Your task to perform on an android device: Add "alienware area 51" to the cart on bestbuy.com Image 0: 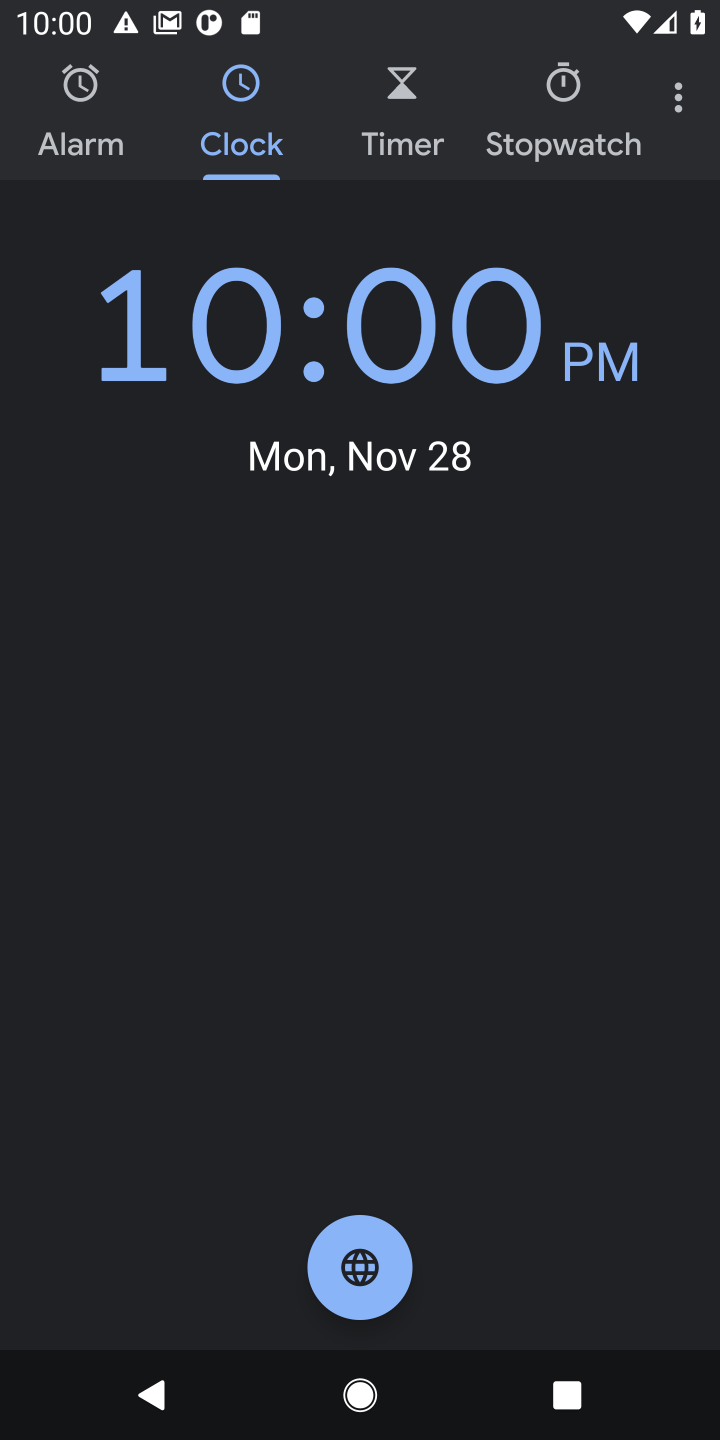
Step 0: press home button
Your task to perform on an android device: Add "alienware area 51" to the cart on bestbuy.com Image 1: 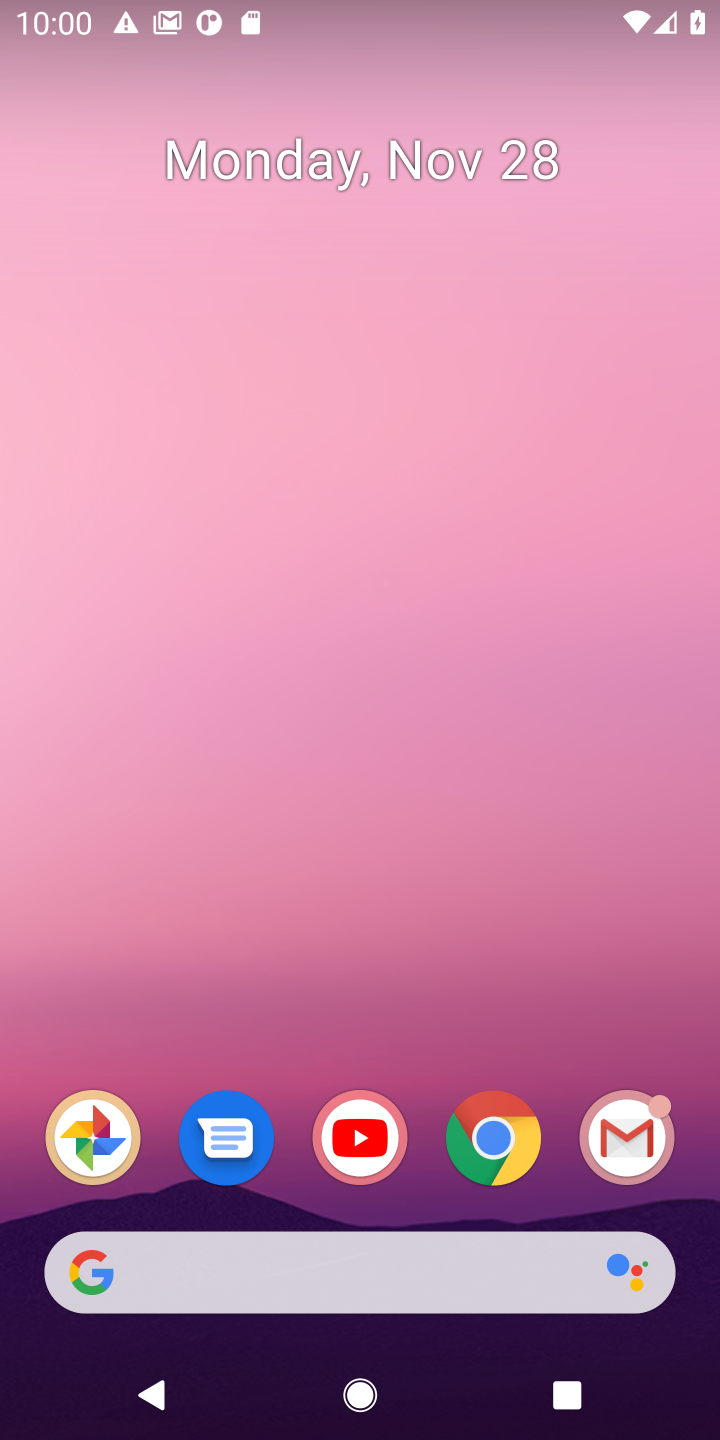
Step 1: click (505, 1149)
Your task to perform on an android device: Add "alienware area 51" to the cart on bestbuy.com Image 2: 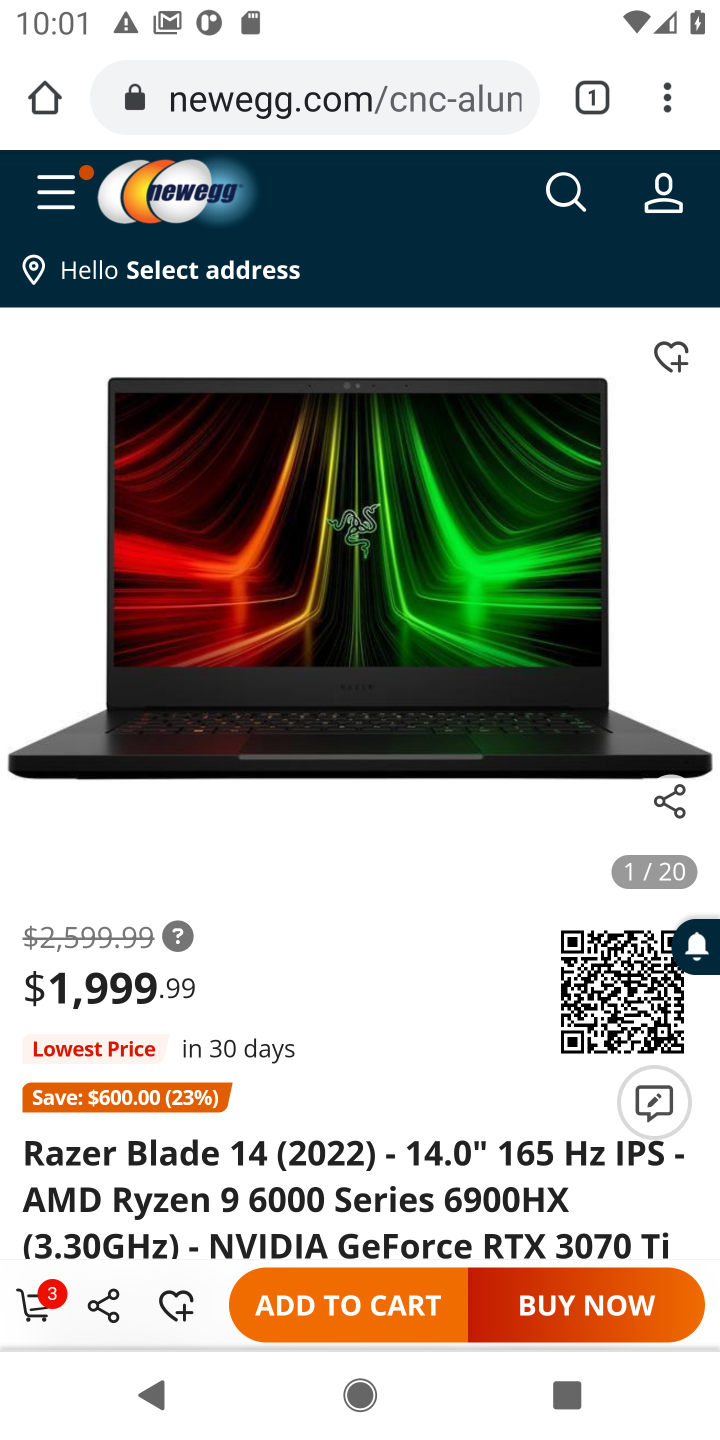
Step 2: click (296, 92)
Your task to perform on an android device: Add "alienware area 51" to the cart on bestbuy.com Image 3: 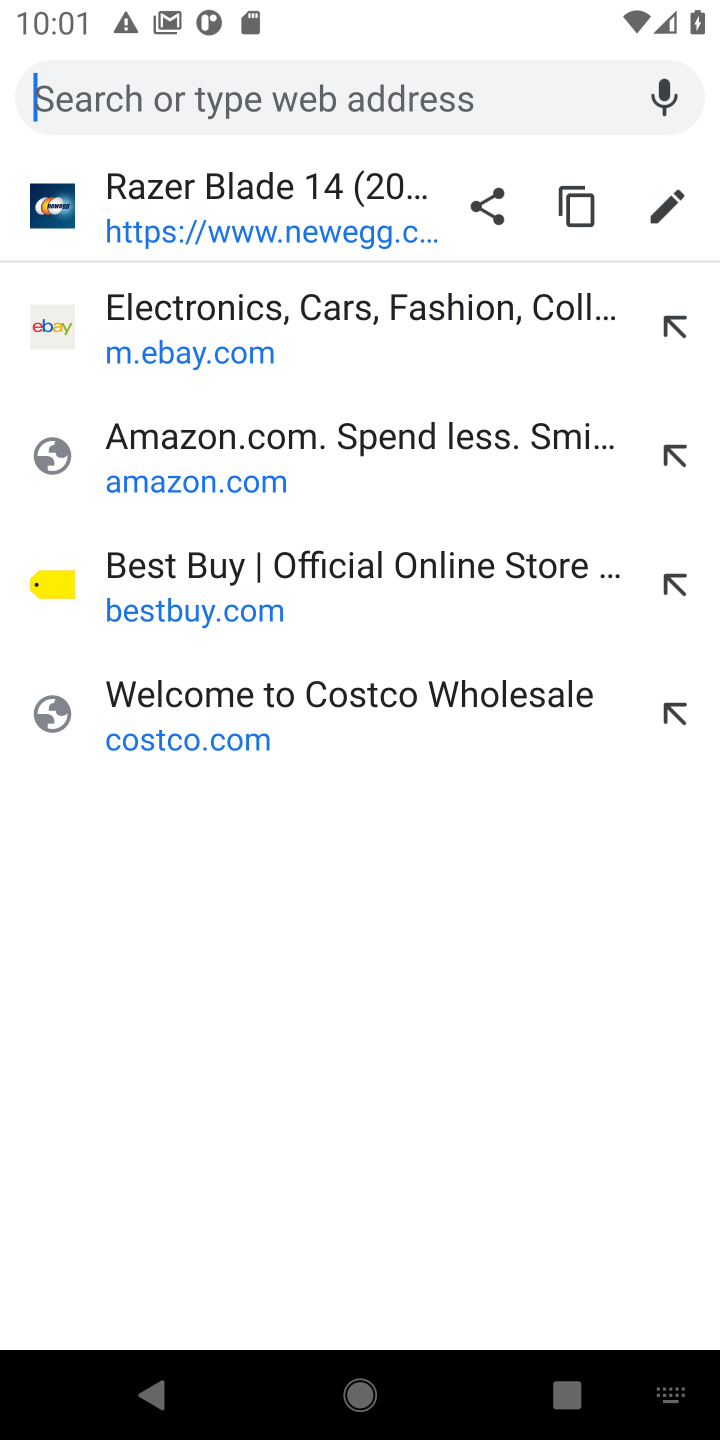
Step 3: click (138, 561)
Your task to perform on an android device: Add "alienware area 51" to the cart on bestbuy.com Image 4: 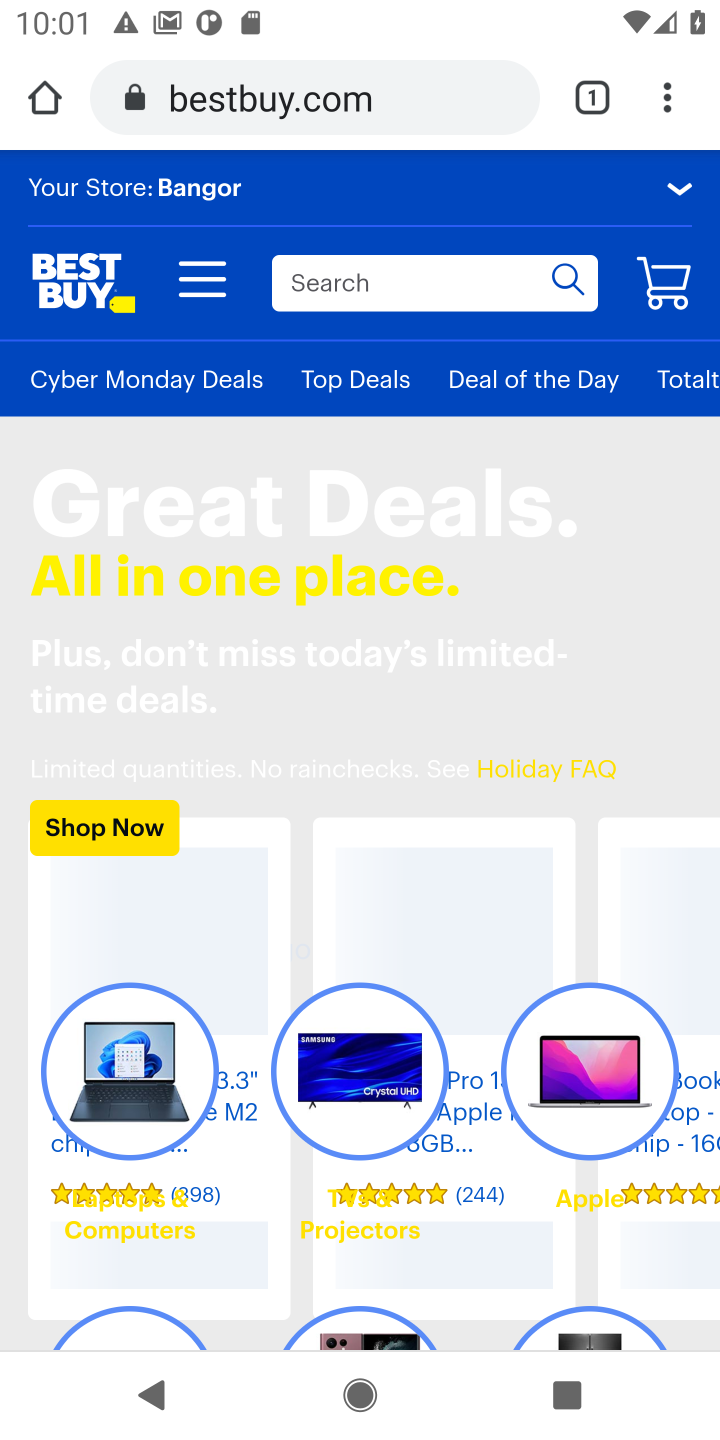
Step 4: click (335, 291)
Your task to perform on an android device: Add "alienware area 51" to the cart on bestbuy.com Image 5: 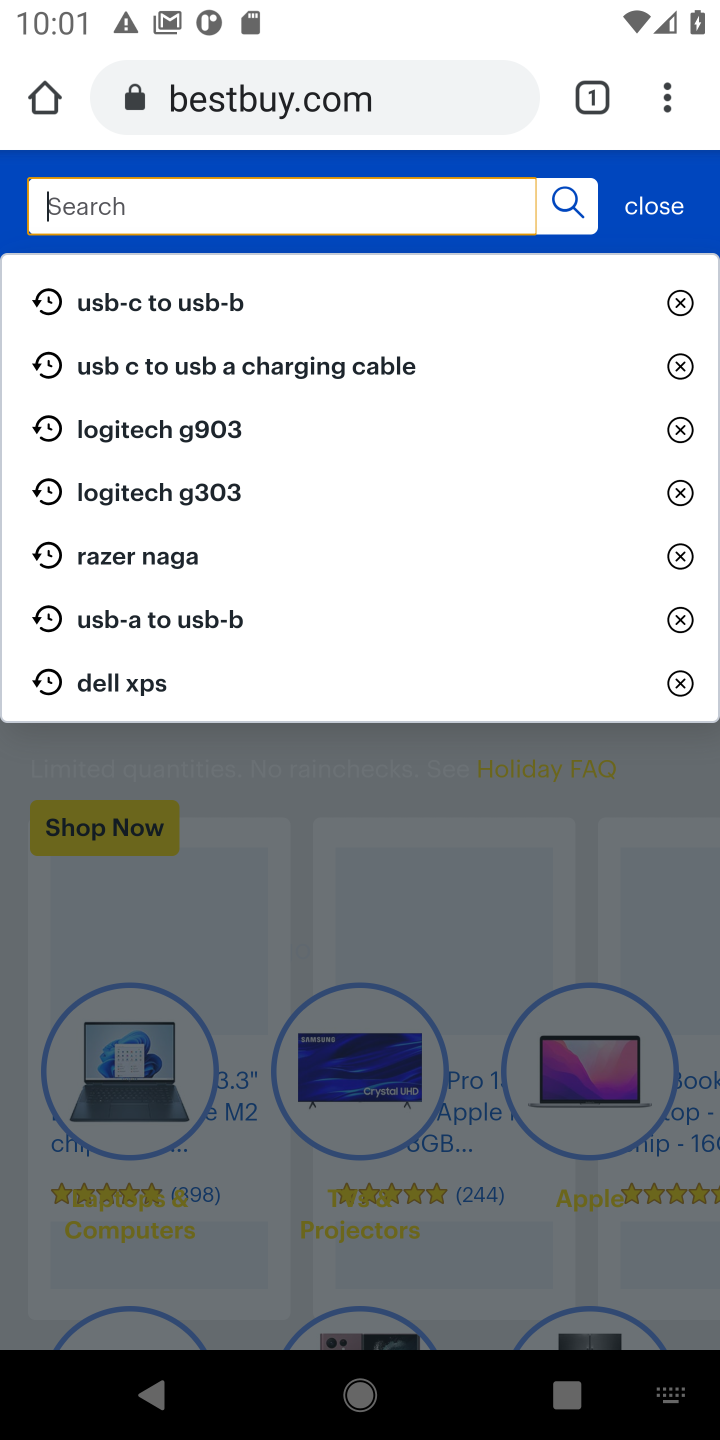
Step 5: type "alienware area 51"
Your task to perform on an android device: Add "alienware area 51" to the cart on bestbuy.com Image 6: 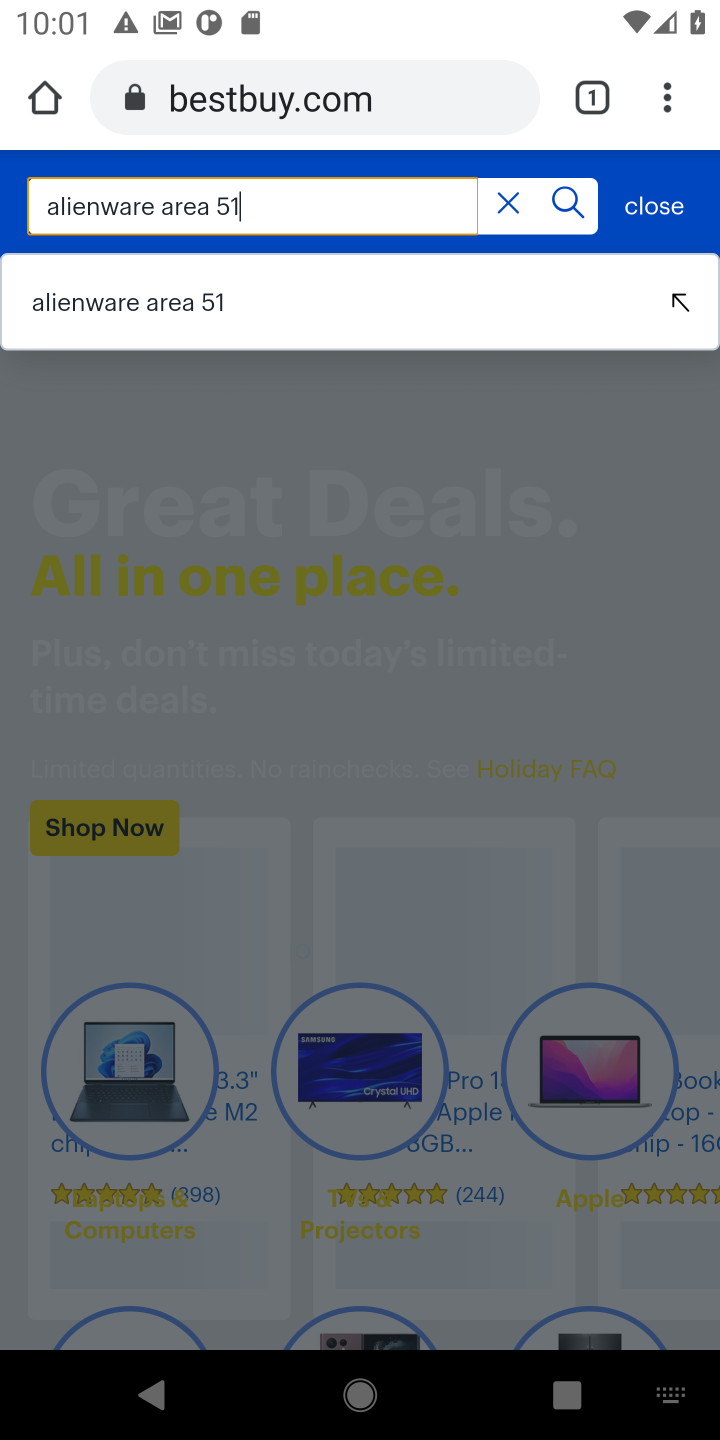
Step 6: click (170, 313)
Your task to perform on an android device: Add "alienware area 51" to the cart on bestbuy.com Image 7: 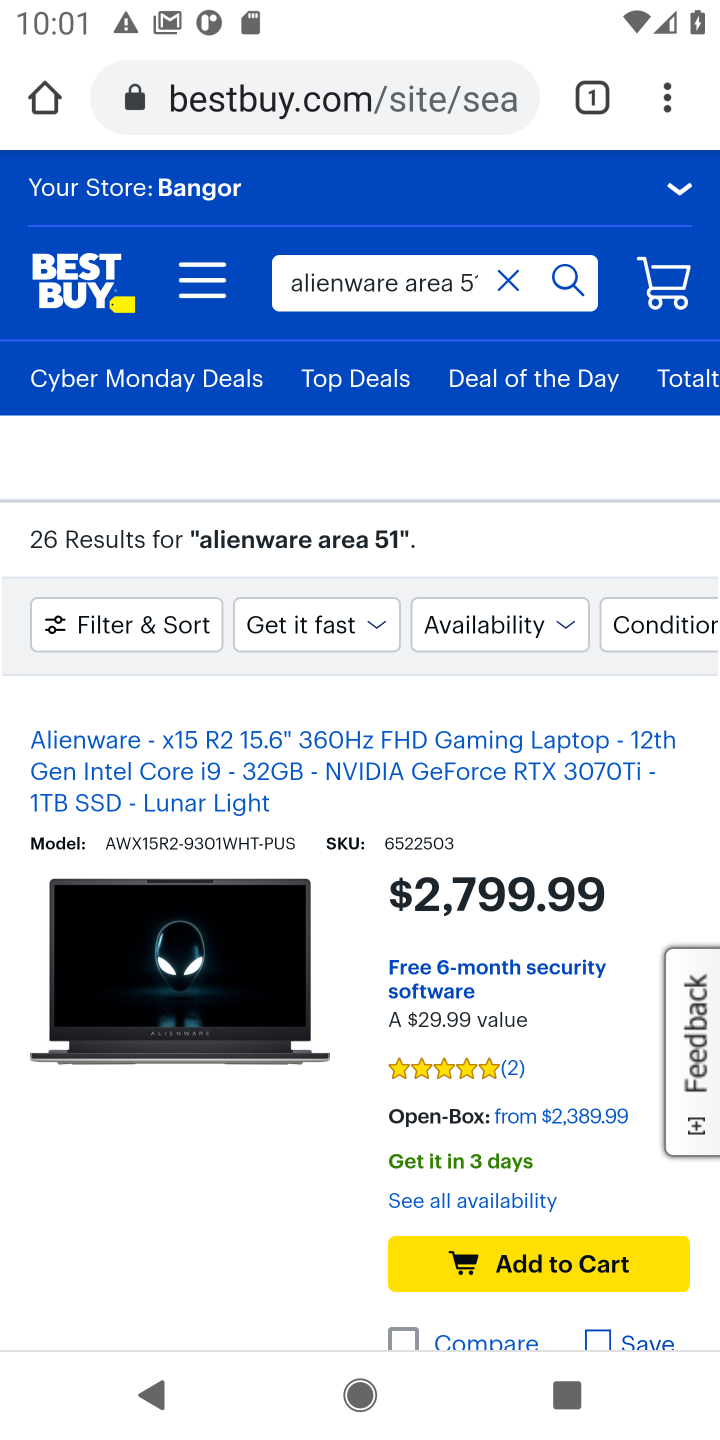
Step 7: drag from (123, 1094) to (86, 512)
Your task to perform on an android device: Add "alienware area 51" to the cart on bestbuy.com Image 8: 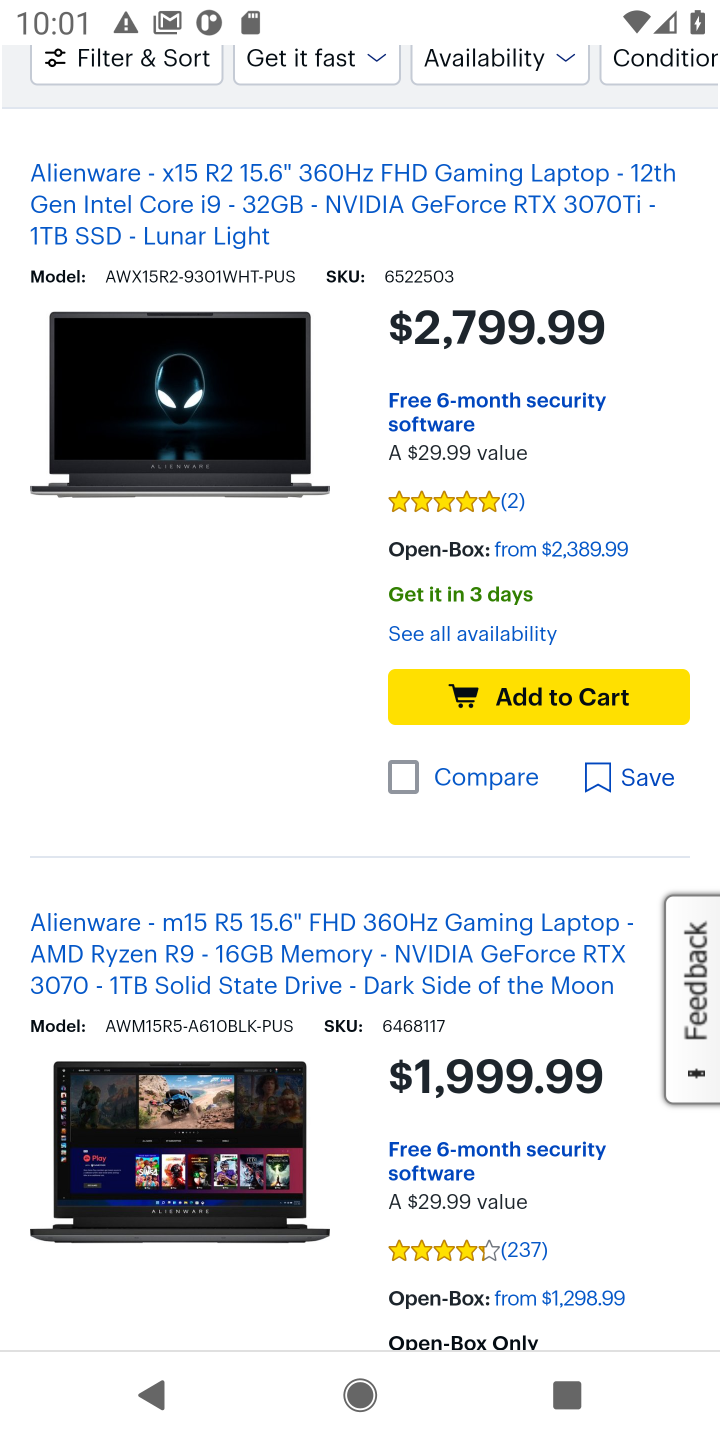
Step 8: drag from (291, 1245) to (193, 390)
Your task to perform on an android device: Add "alienware area 51" to the cart on bestbuy.com Image 9: 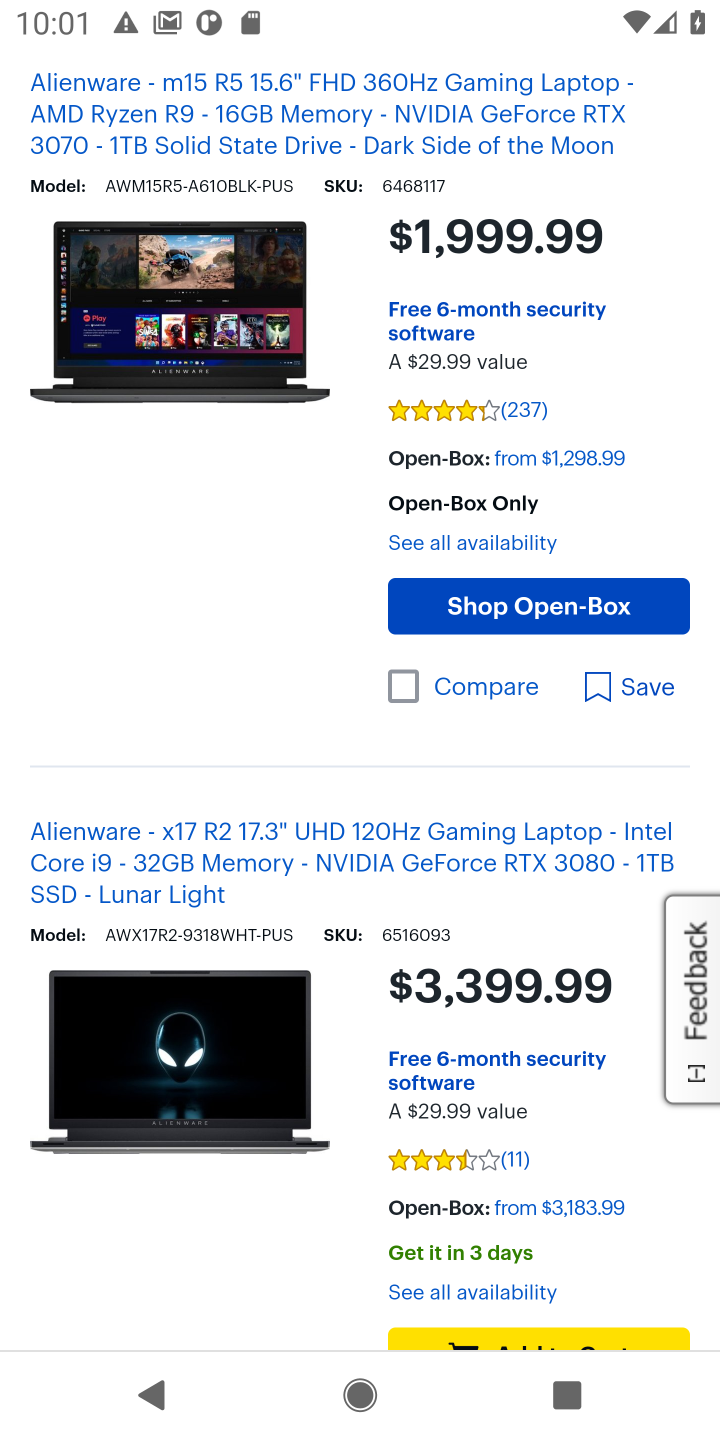
Step 9: drag from (581, 1245) to (527, 404)
Your task to perform on an android device: Add "alienware area 51" to the cart on bestbuy.com Image 10: 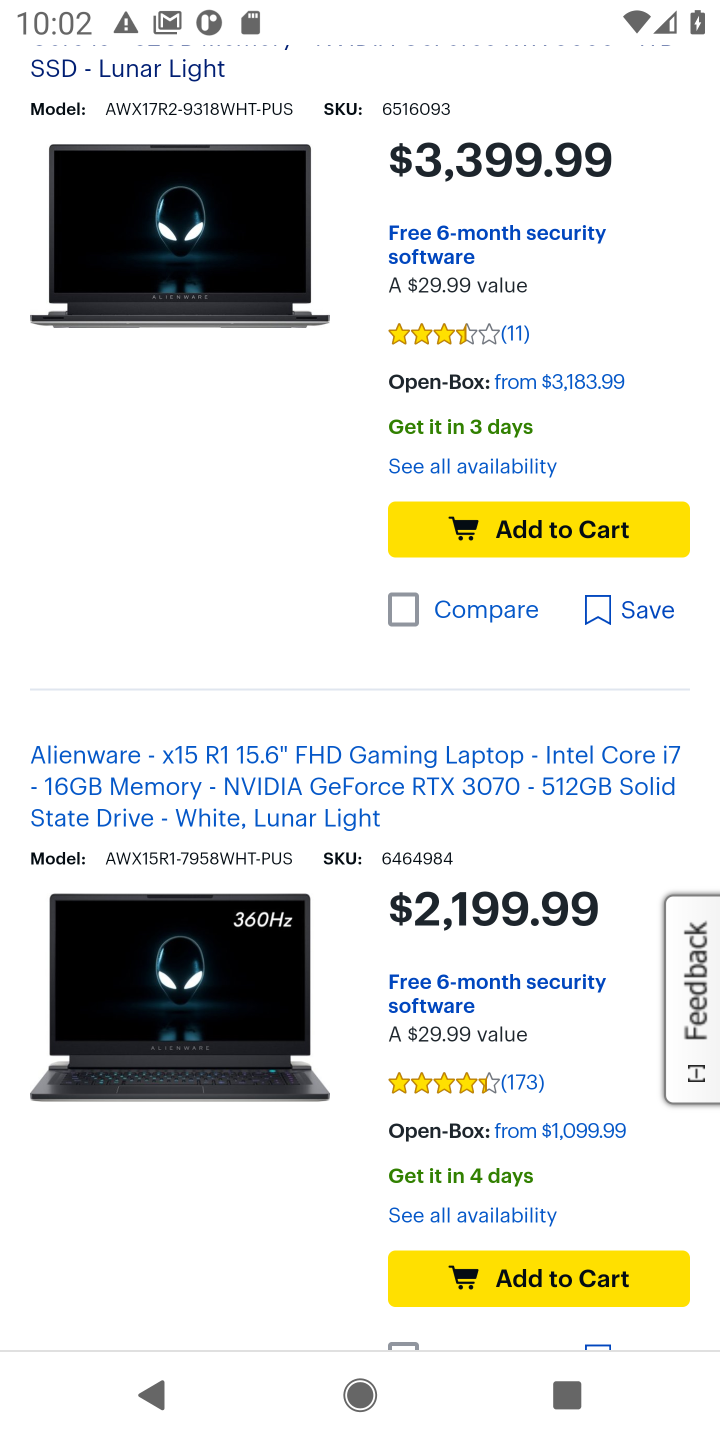
Step 10: drag from (570, 1168) to (515, 325)
Your task to perform on an android device: Add "alienware area 51" to the cart on bestbuy.com Image 11: 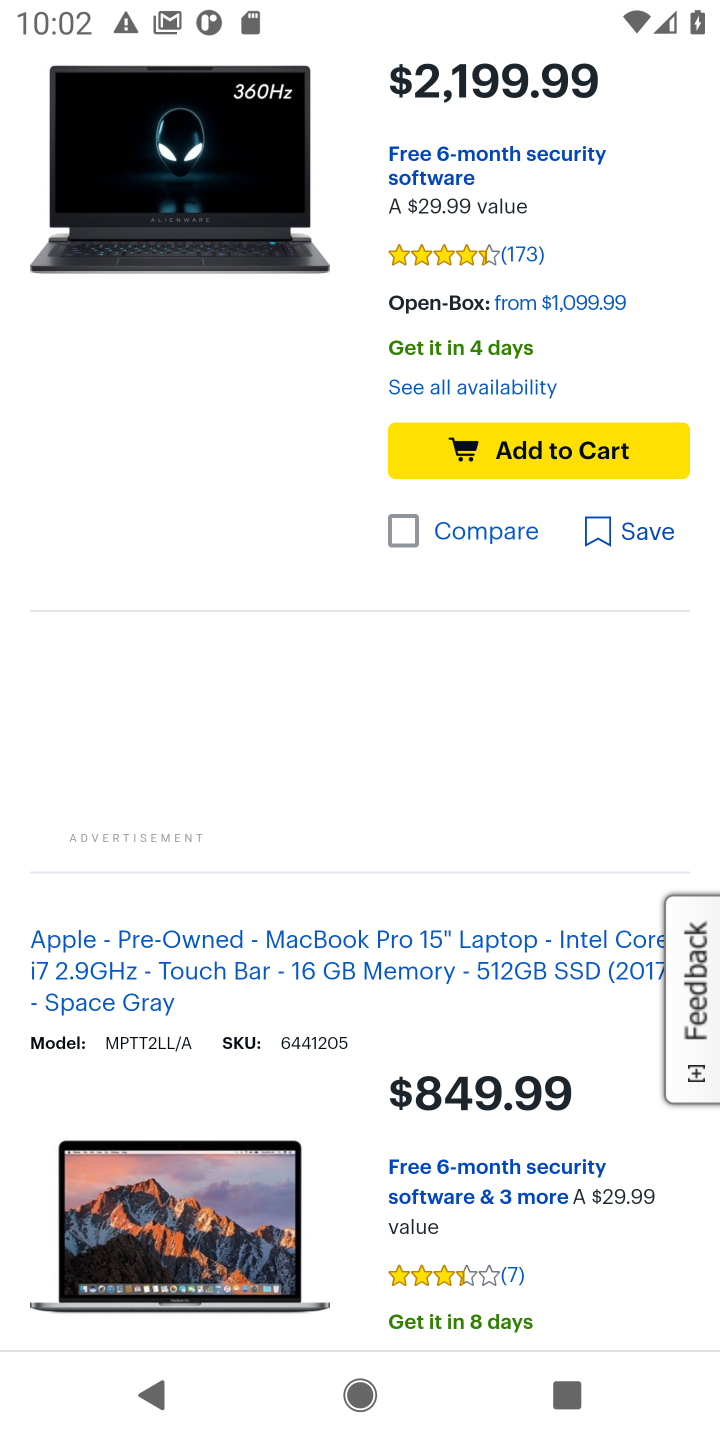
Step 11: drag from (574, 1198) to (541, 417)
Your task to perform on an android device: Add "alienware area 51" to the cart on bestbuy.com Image 12: 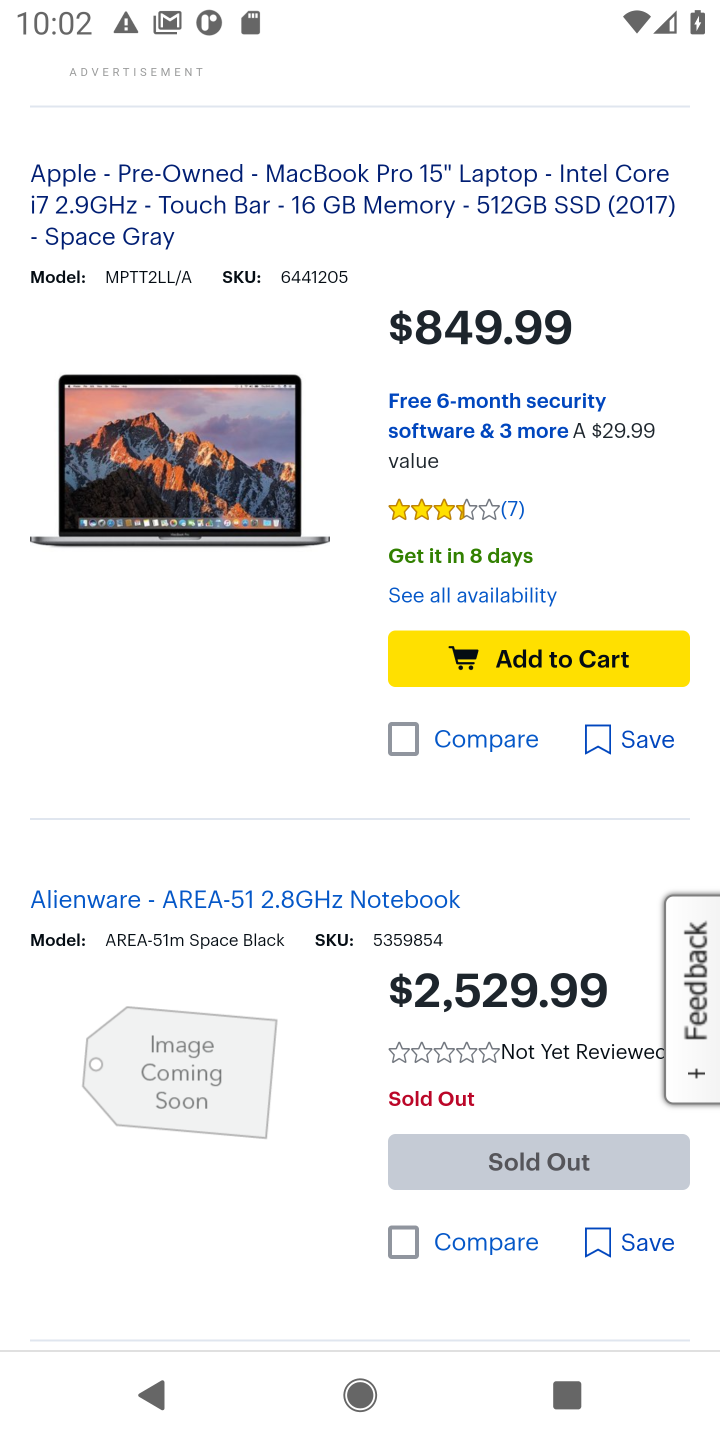
Step 12: drag from (537, 1072) to (509, 427)
Your task to perform on an android device: Add "alienware area 51" to the cart on bestbuy.com Image 13: 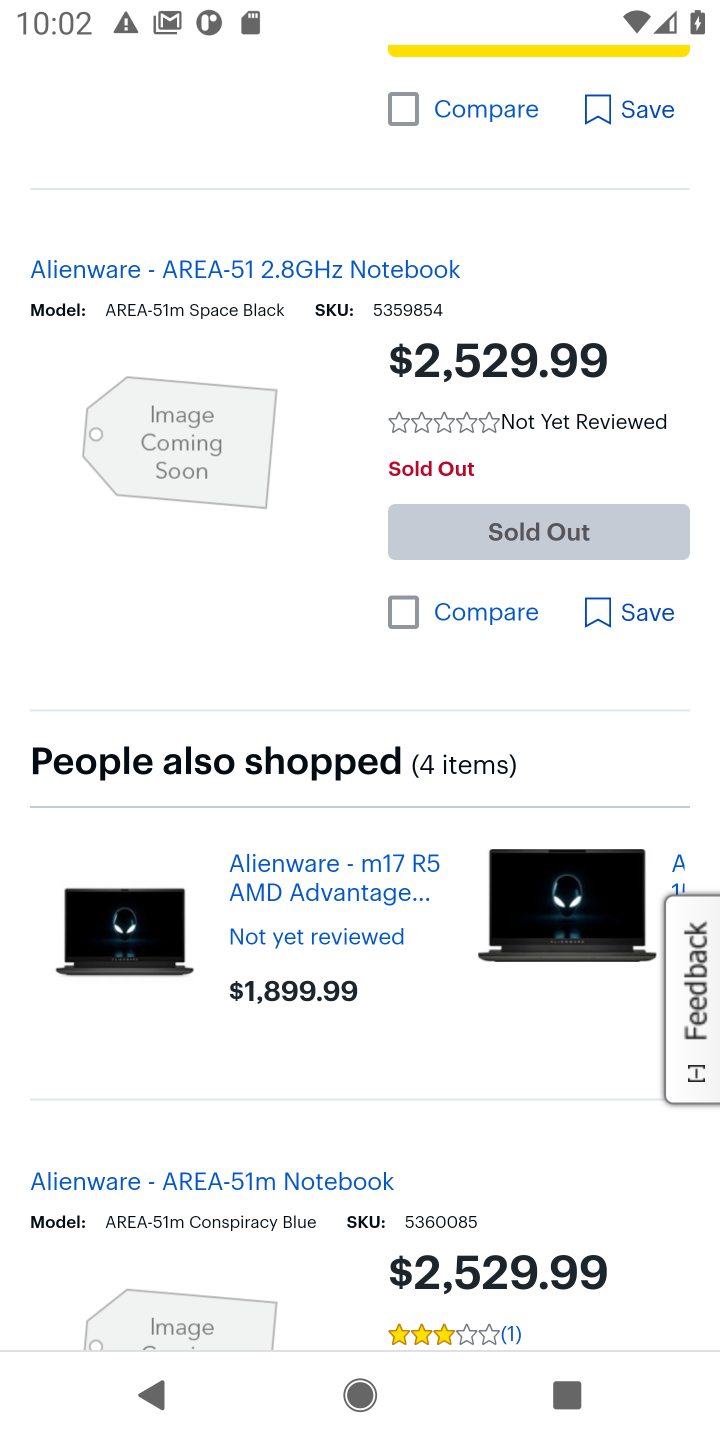
Step 13: drag from (478, 1032) to (422, 397)
Your task to perform on an android device: Add "alienware area 51" to the cart on bestbuy.com Image 14: 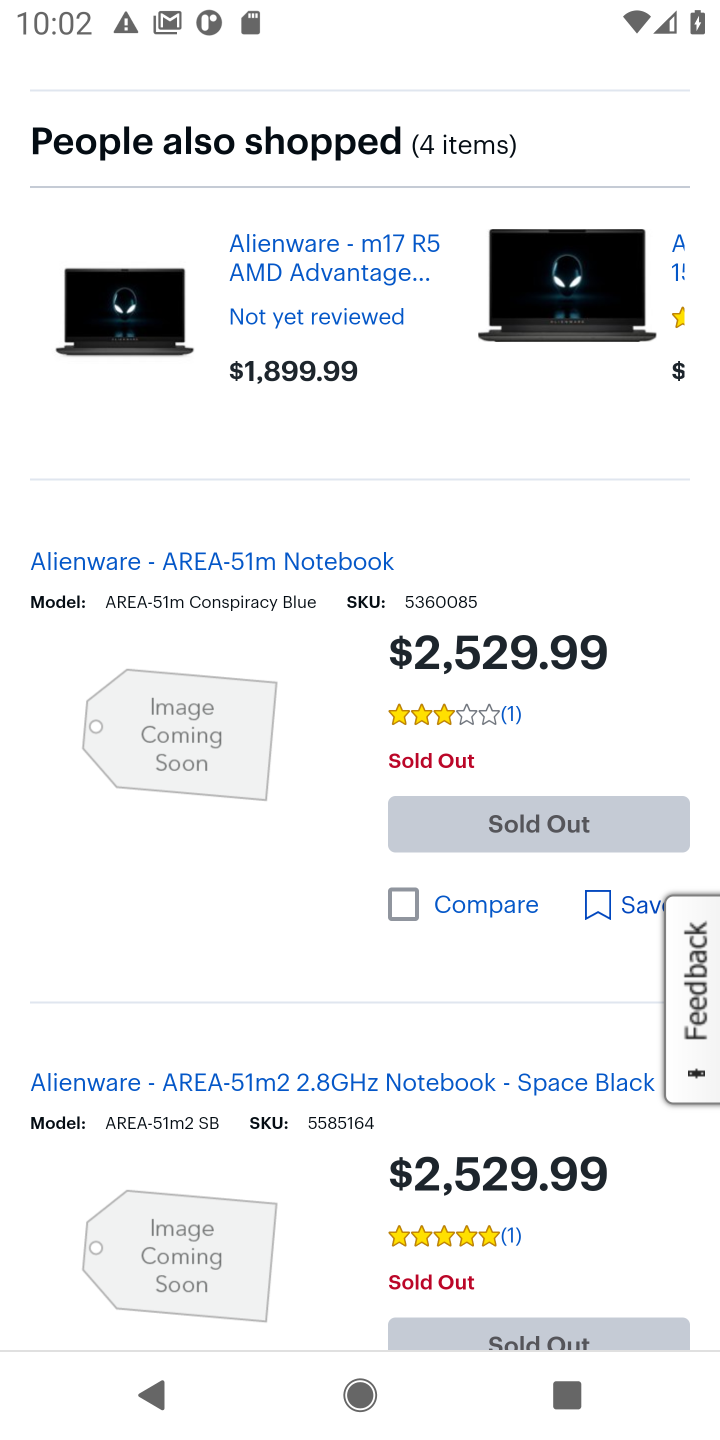
Step 14: drag from (390, 828) to (400, 440)
Your task to perform on an android device: Add "alienware area 51" to the cart on bestbuy.com Image 15: 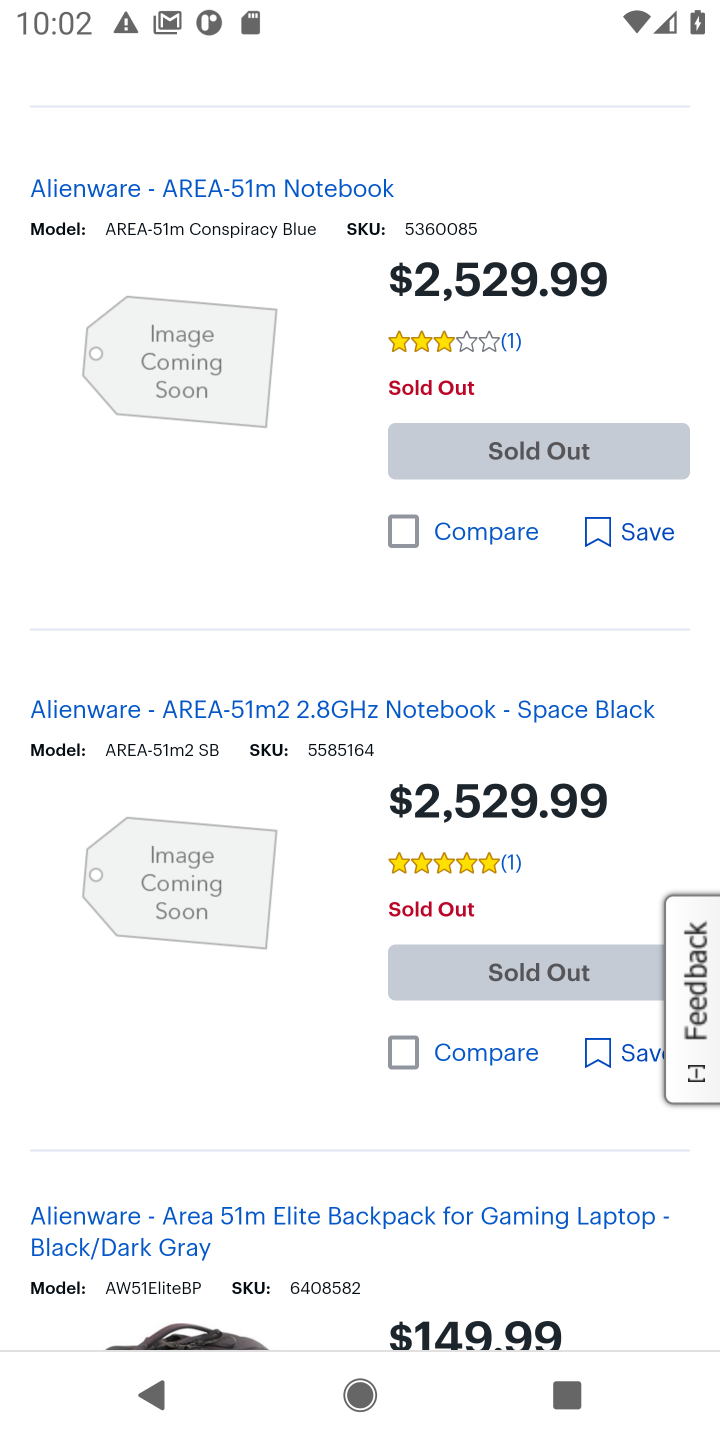
Step 15: drag from (355, 1015) to (324, 559)
Your task to perform on an android device: Add "alienware area 51" to the cart on bestbuy.com Image 16: 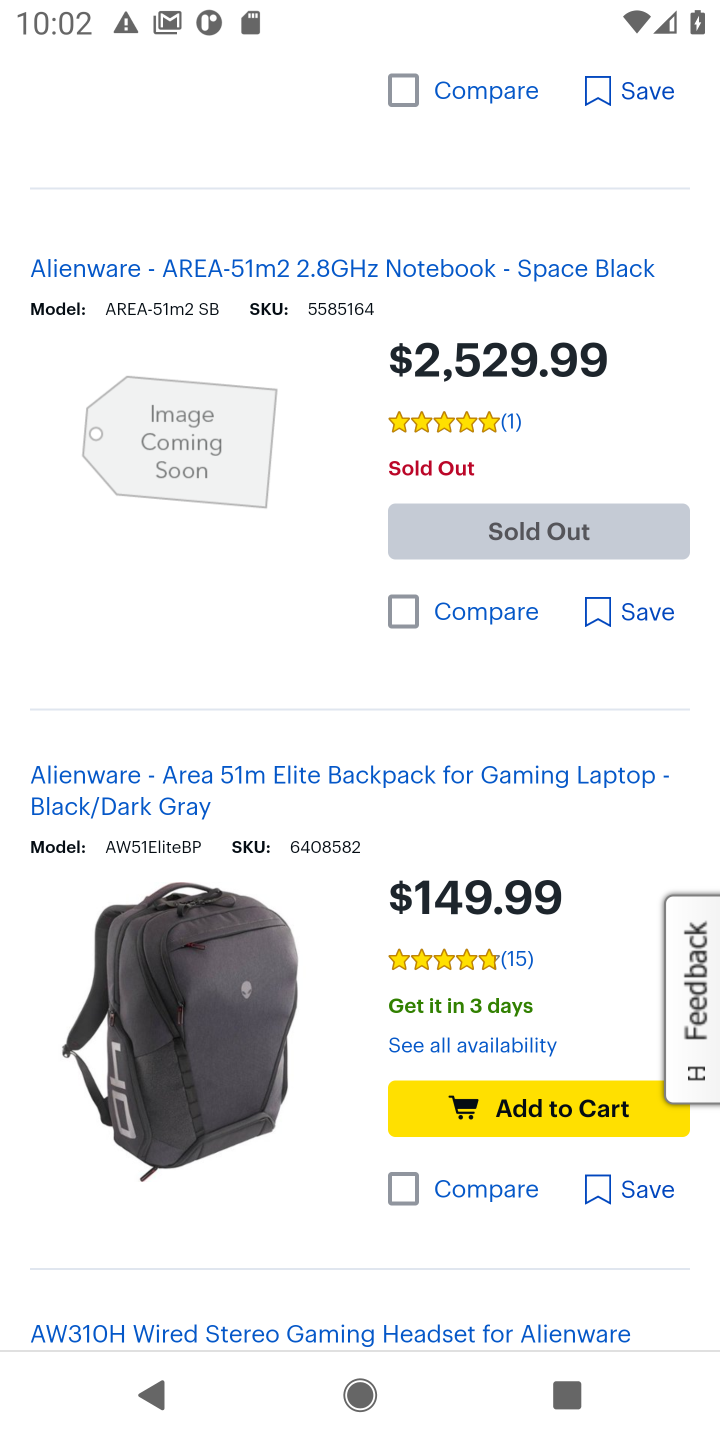
Step 16: click (536, 1117)
Your task to perform on an android device: Add "alienware area 51" to the cart on bestbuy.com Image 17: 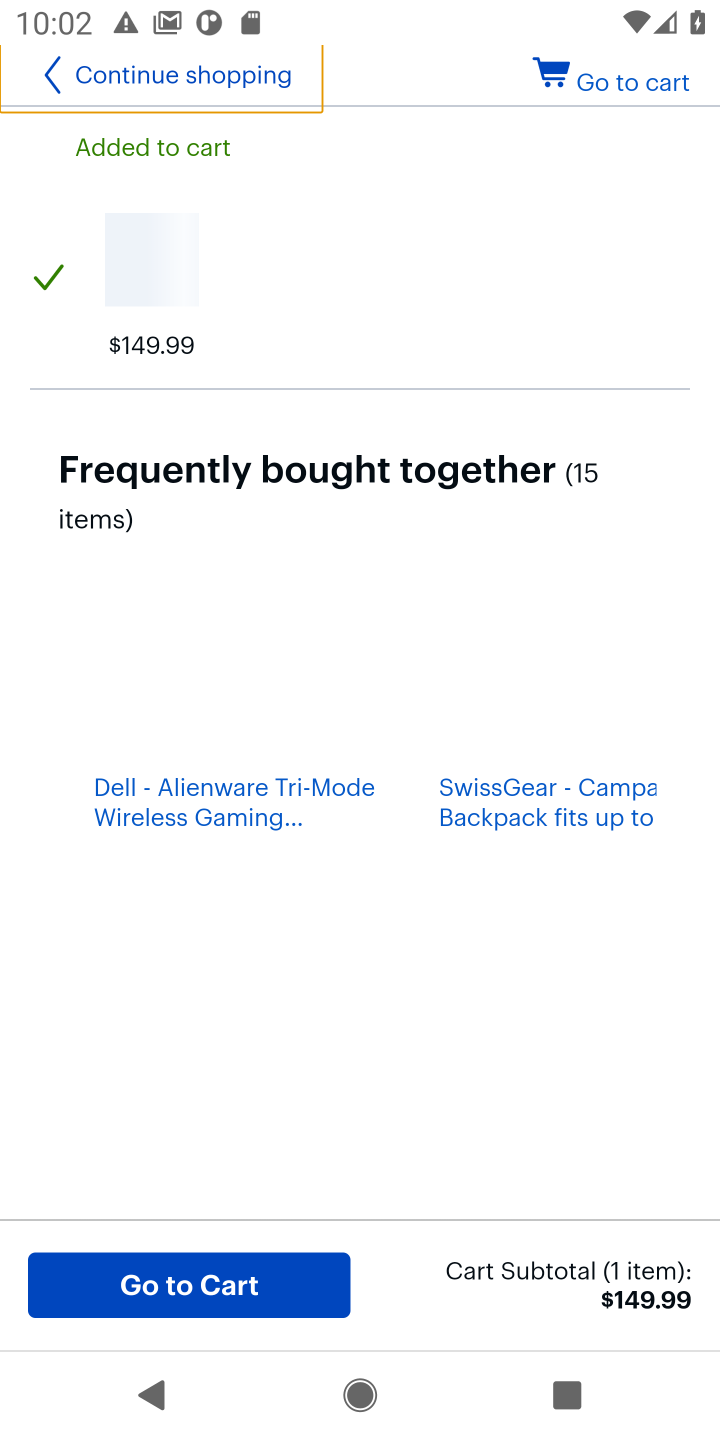
Step 17: task complete